Your task to perform on an android device: uninstall "Facebook Lite" Image 0: 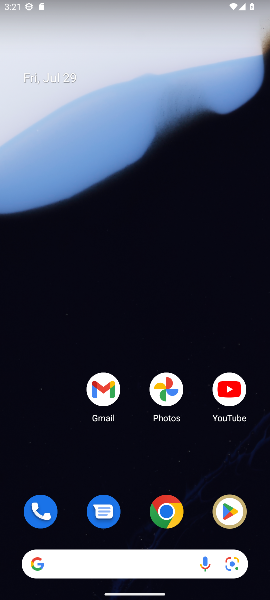
Step 0: drag from (33, 547) to (120, 107)
Your task to perform on an android device: uninstall "Facebook Lite" Image 1: 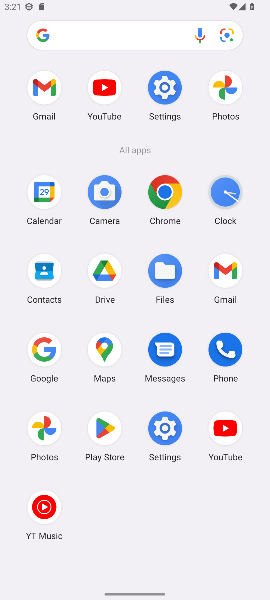
Step 1: task complete